Your task to perform on an android device: Go to Maps Image 0: 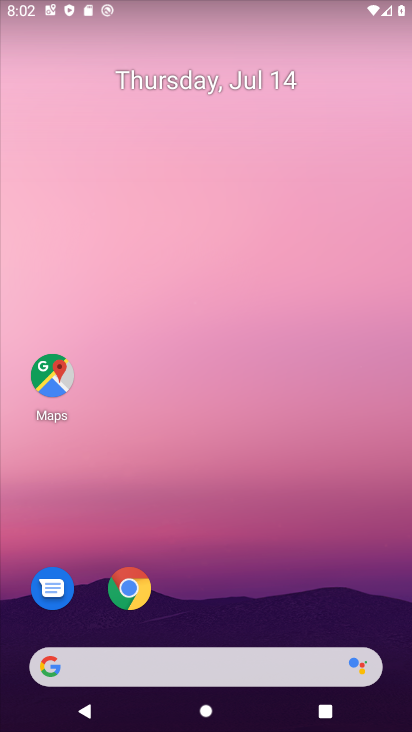
Step 0: click (47, 381)
Your task to perform on an android device: Go to Maps Image 1: 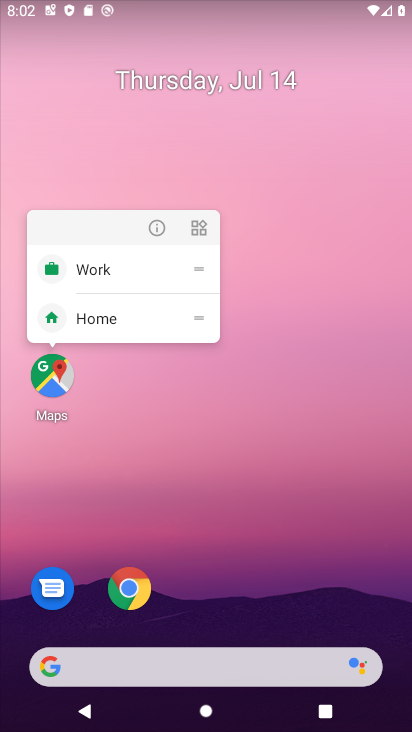
Step 1: click (47, 381)
Your task to perform on an android device: Go to Maps Image 2: 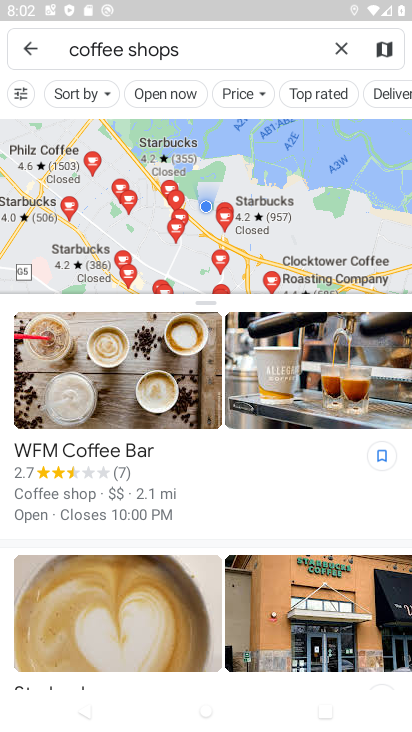
Step 2: task complete